Your task to perform on an android device: open device folders in google photos Image 0: 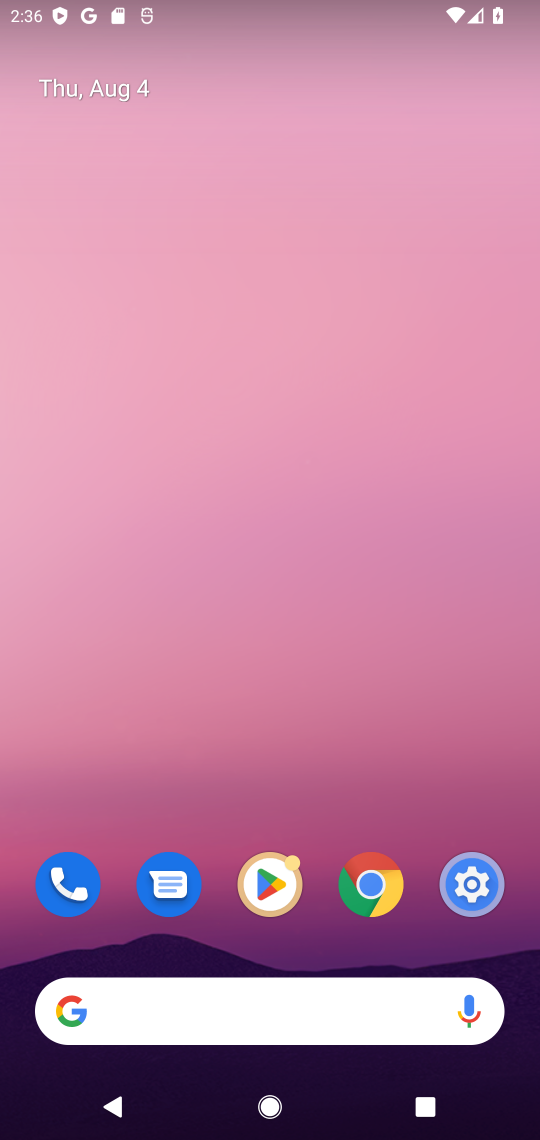
Step 0: drag from (173, 992) to (287, 108)
Your task to perform on an android device: open device folders in google photos Image 1: 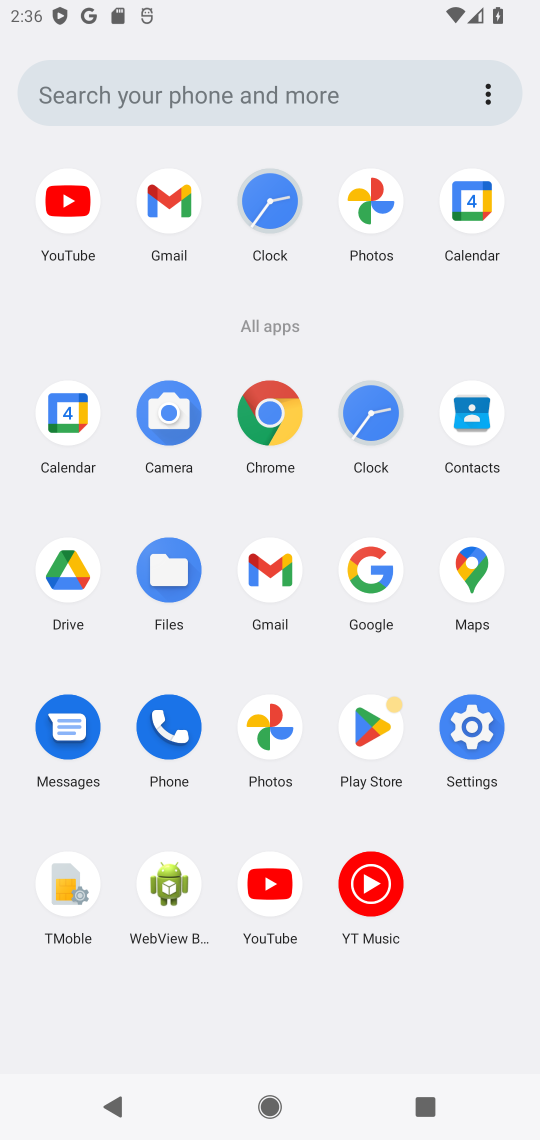
Step 1: click (365, 314)
Your task to perform on an android device: open device folders in google photos Image 2: 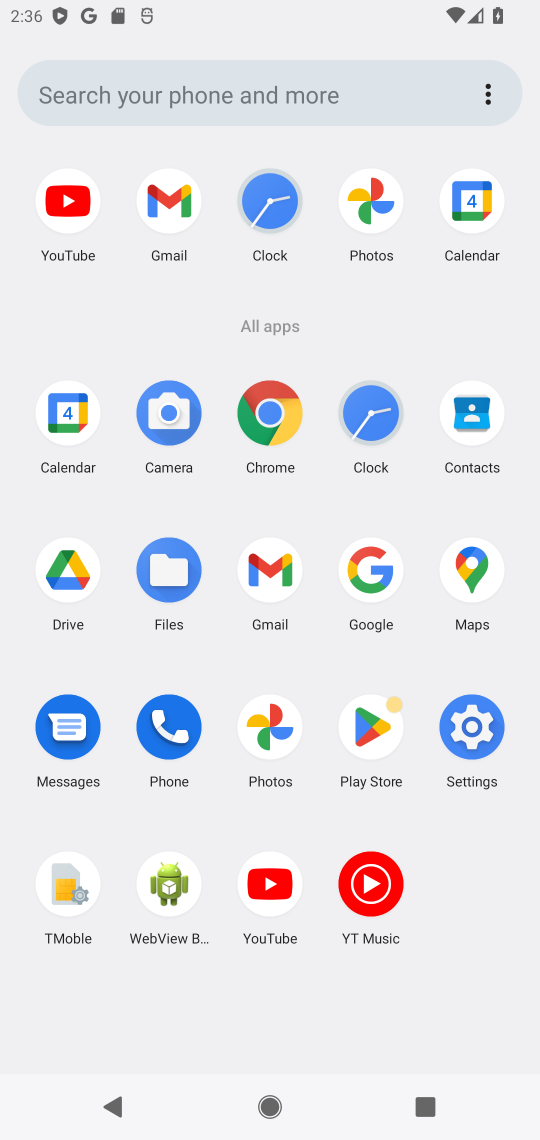
Step 2: click (274, 707)
Your task to perform on an android device: open device folders in google photos Image 3: 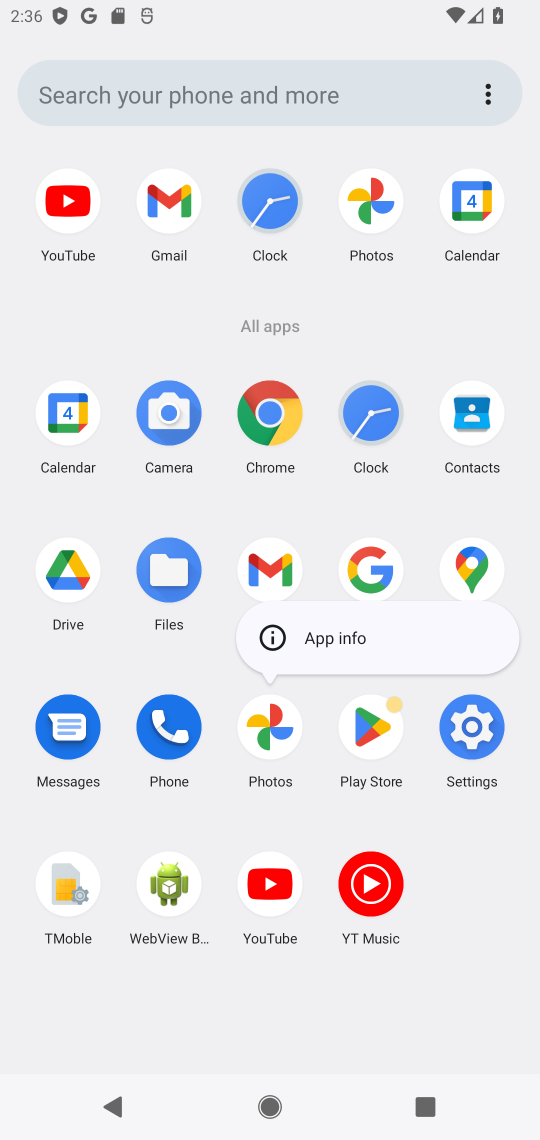
Step 3: click (359, 642)
Your task to perform on an android device: open device folders in google photos Image 4: 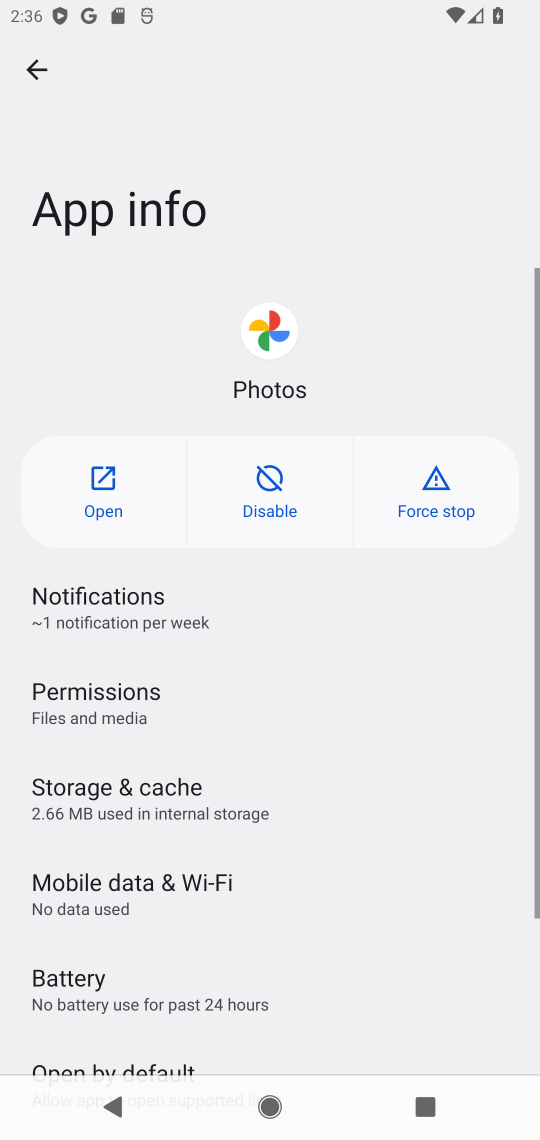
Step 4: click (104, 507)
Your task to perform on an android device: open device folders in google photos Image 5: 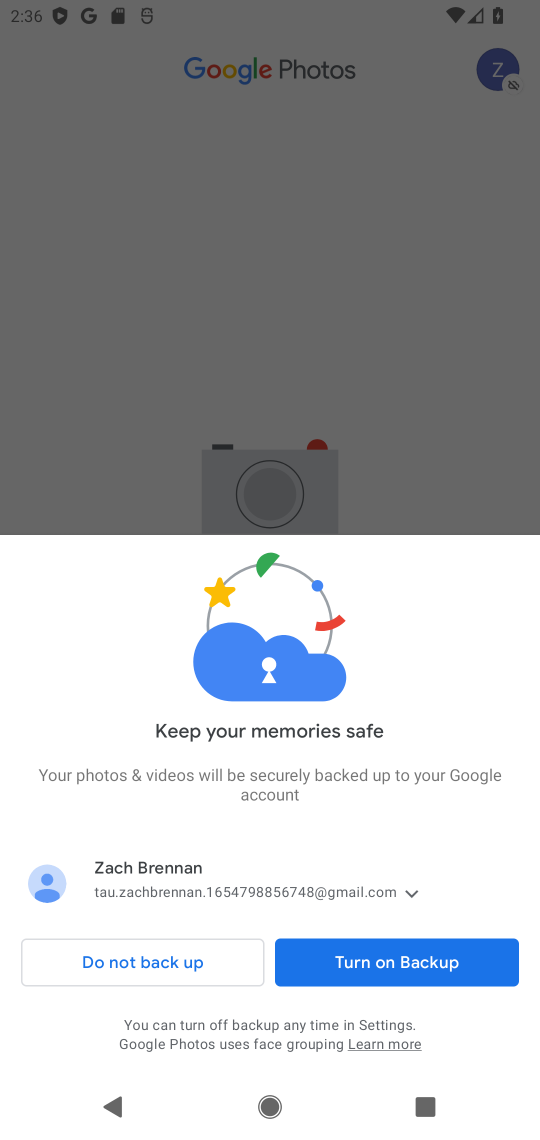
Step 5: click (154, 969)
Your task to perform on an android device: open device folders in google photos Image 6: 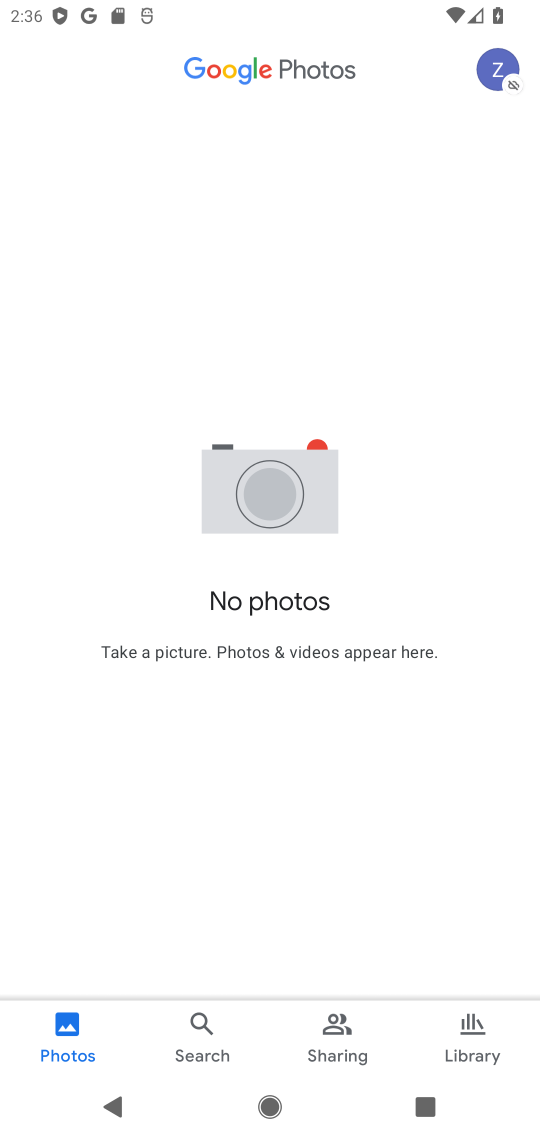
Step 6: click (512, 76)
Your task to perform on an android device: open device folders in google photos Image 7: 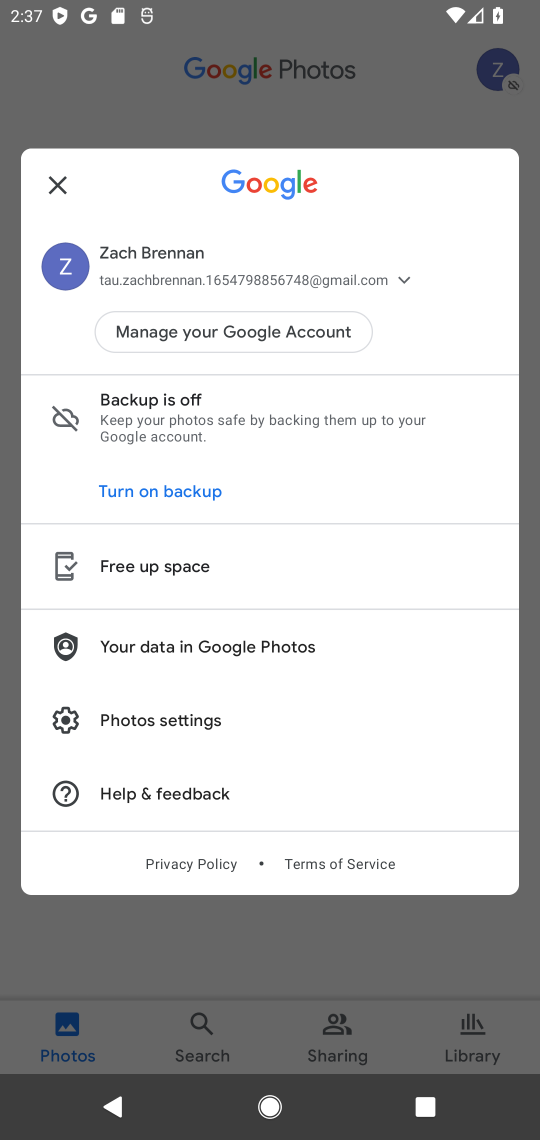
Step 7: click (246, 919)
Your task to perform on an android device: open device folders in google photos Image 8: 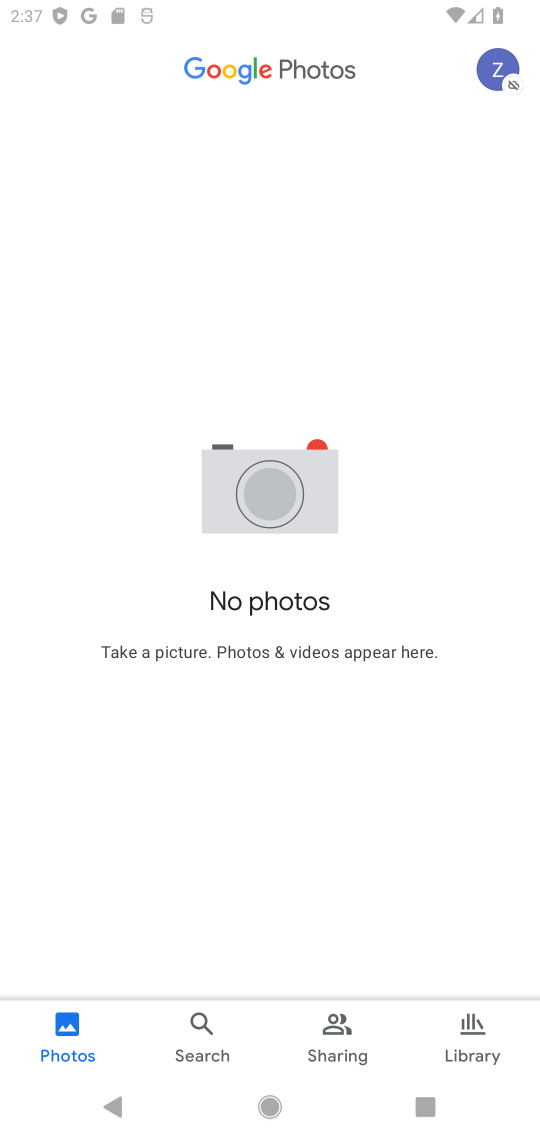
Step 8: click (200, 1004)
Your task to perform on an android device: open device folders in google photos Image 9: 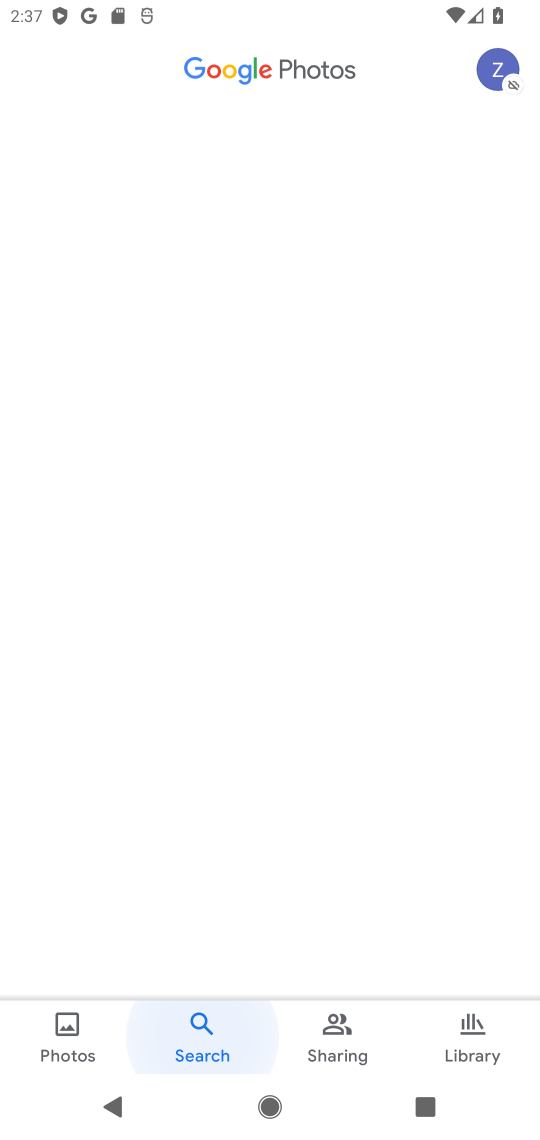
Step 9: click (208, 1015)
Your task to perform on an android device: open device folders in google photos Image 10: 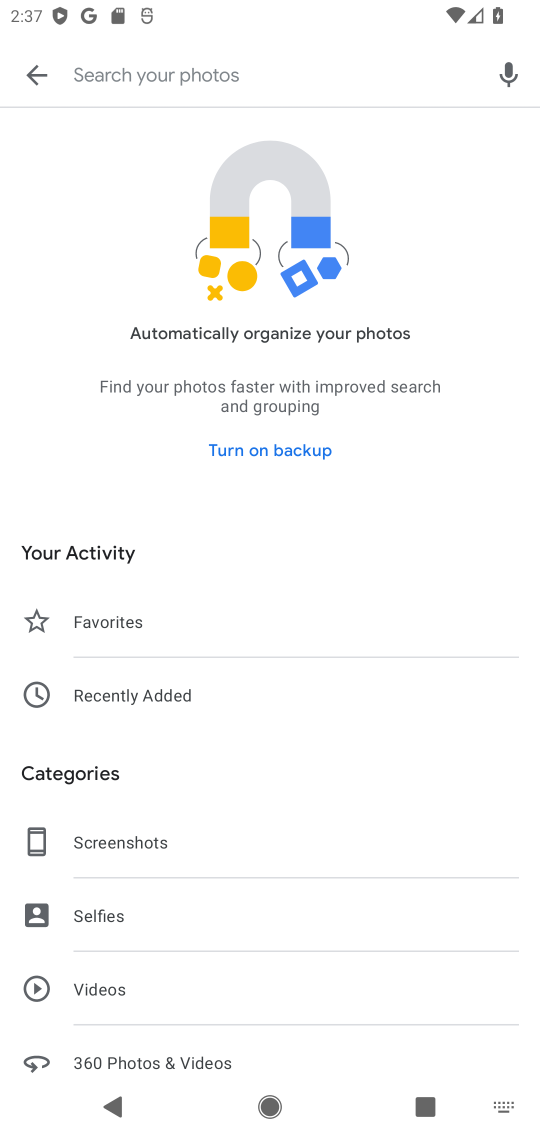
Step 10: drag from (337, 925) to (454, 425)
Your task to perform on an android device: open device folders in google photos Image 11: 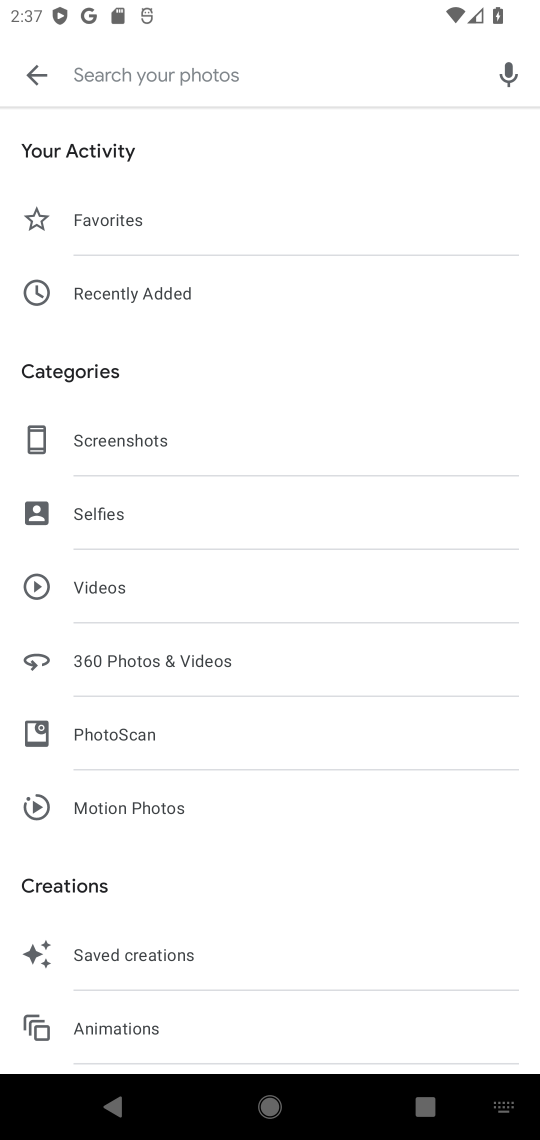
Step 11: click (23, 78)
Your task to perform on an android device: open device folders in google photos Image 12: 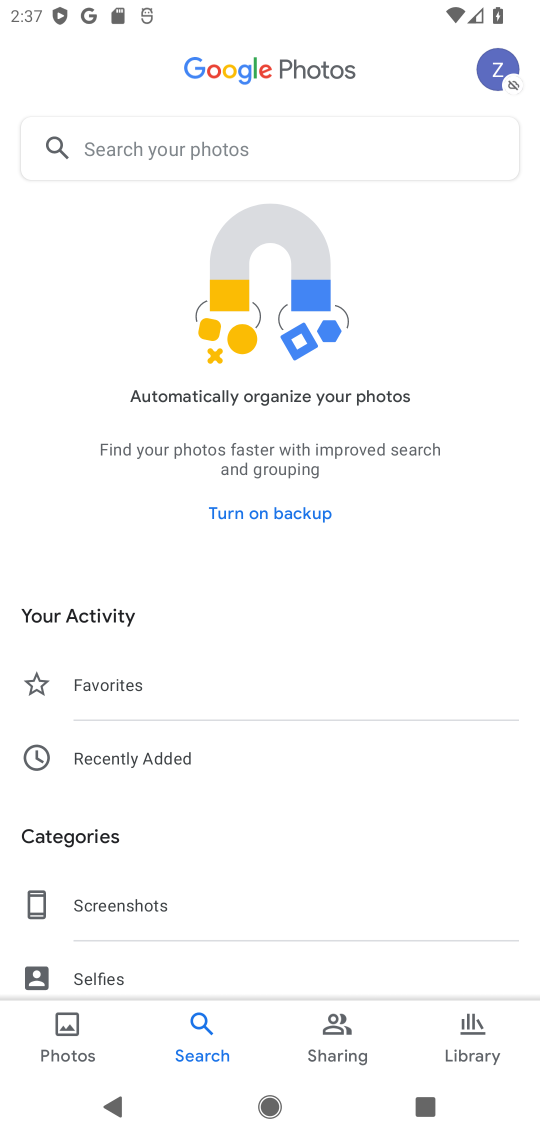
Step 12: drag from (272, 923) to (419, 509)
Your task to perform on an android device: open device folders in google photos Image 13: 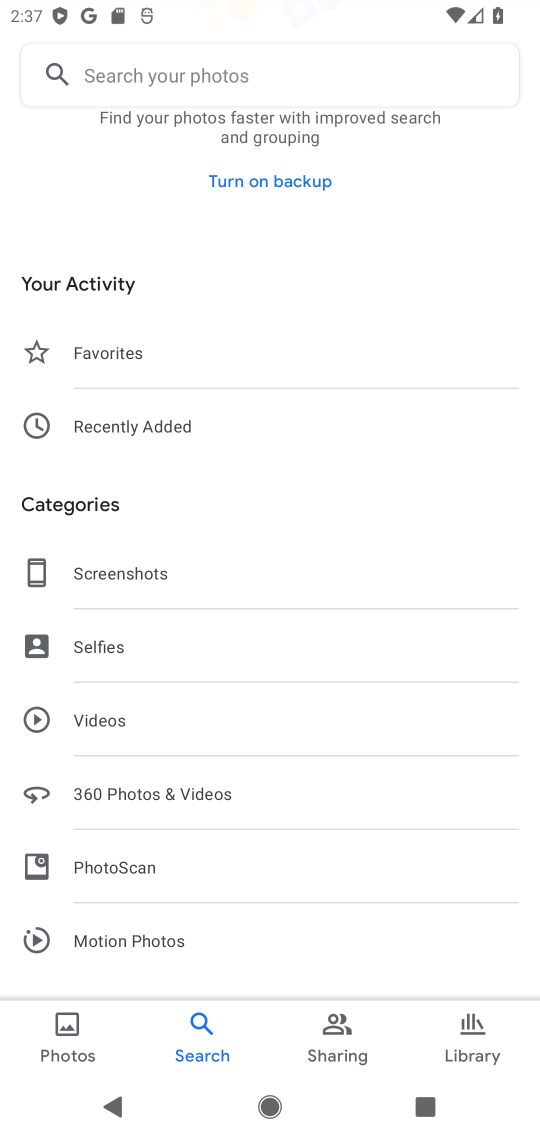
Step 13: click (458, 1032)
Your task to perform on an android device: open device folders in google photos Image 14: 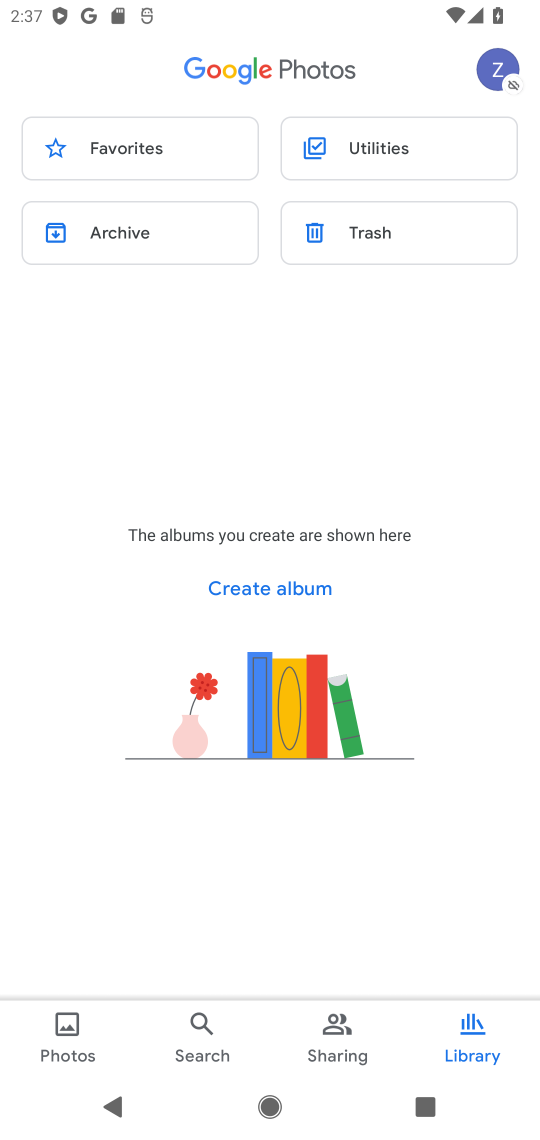
Step 14: task complete